Your task to perform on an android device: Clear all items from cart on newegg. Add "dell xps" to the cart on newegg Image 0: 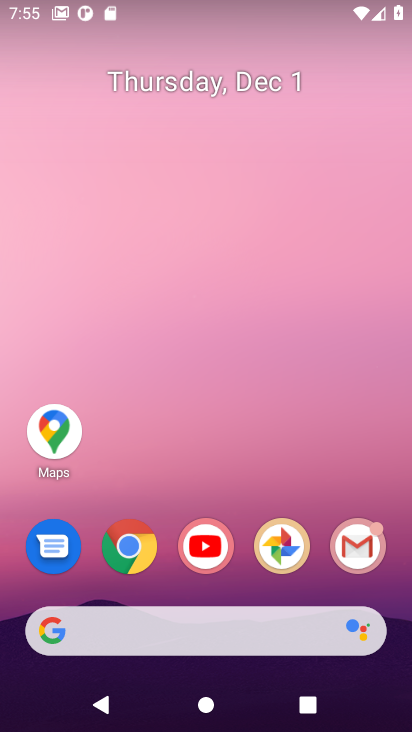
Step 0: click (133, 557)
Your task to perform on an android device: Clear all items from cart on newegg. Add "dell xps" to the cart on newegg Image 1: 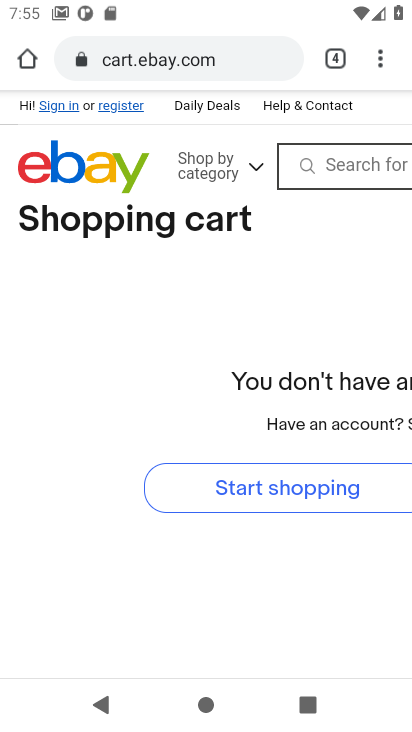
Step 1: click (165, 60)
Your task to perform on an android device: Clear all items from cart on newegg. Add "dell xps" to the cart on newegg Image 2: 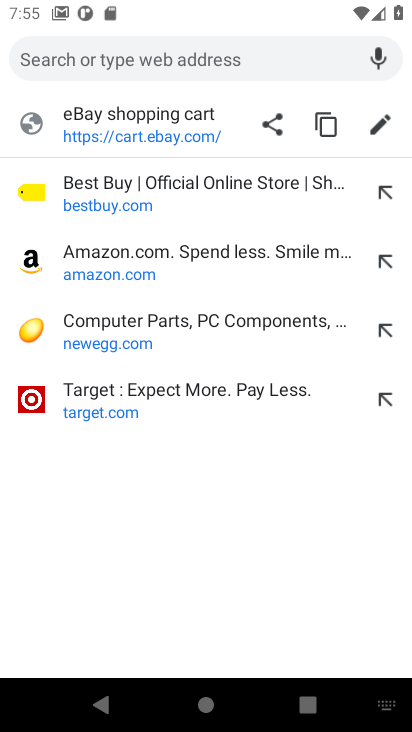
Step 2: click (79, 323)
Your task to perform on an android device: Clear all items from cart on newegg. Add "dell xps" to the cart on newegg Image 3: 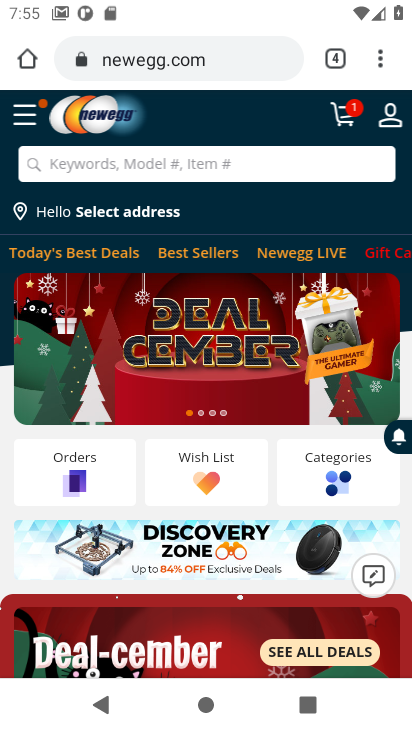
Step 3: click (339, 118)
Your task to perform on an android device: Clear all items from cart on newegg. Add "dell xps" to the cart on newegg Image 4: 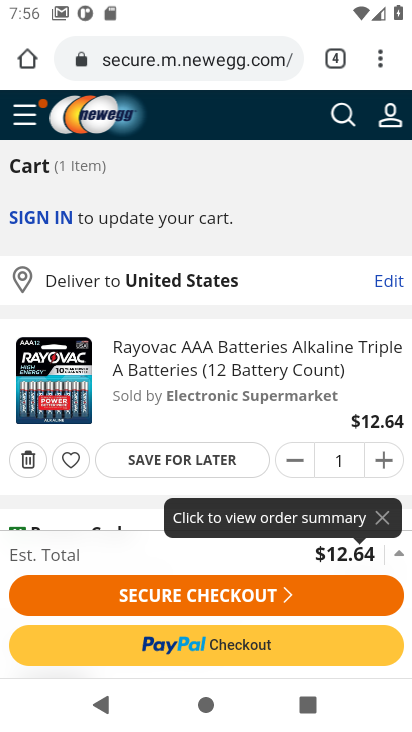
Step 4: click (23, 458)
Your task to perform on an android device: Clear all items from cart on newegg. Add "dell xps" to the cart on newegg Image 5: 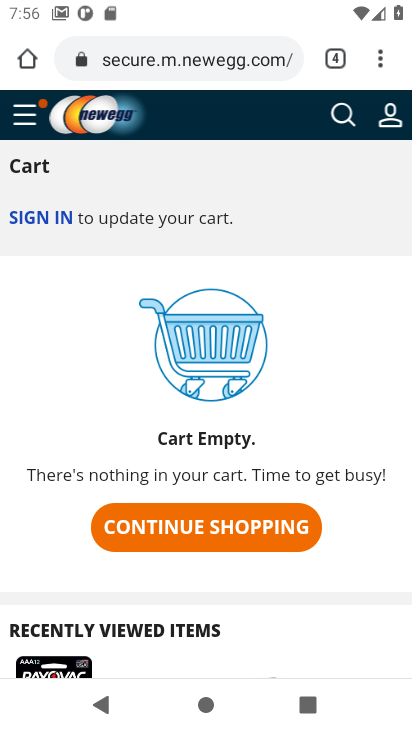
Step 5: click (339, 116)
Your task to perform on an android device: Clear all items from cart on newegg. Add "dell xps" to the cart on newegg Image 6: 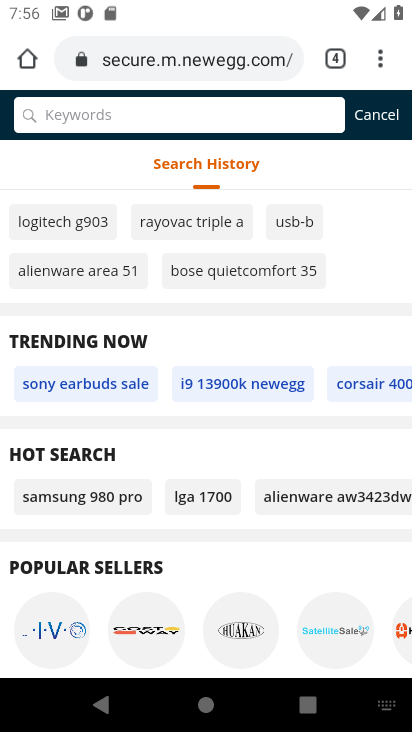
Step 6: type "dell xps"
Your task to perform on an android device: Clear all items from cart on newegg. Add "dell xps" to the cart on newegg Image 7: 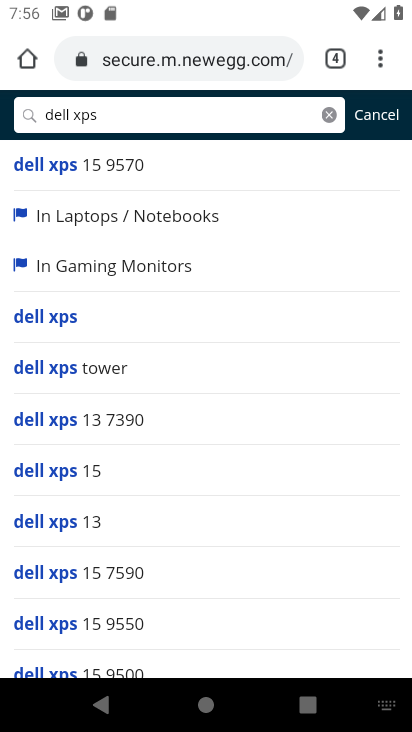
Step 7: click (56, 317)
Your task to perform on an android device: Clear all items from cart on newegg. Add "dell xps" to the cart on newegg Image 8: 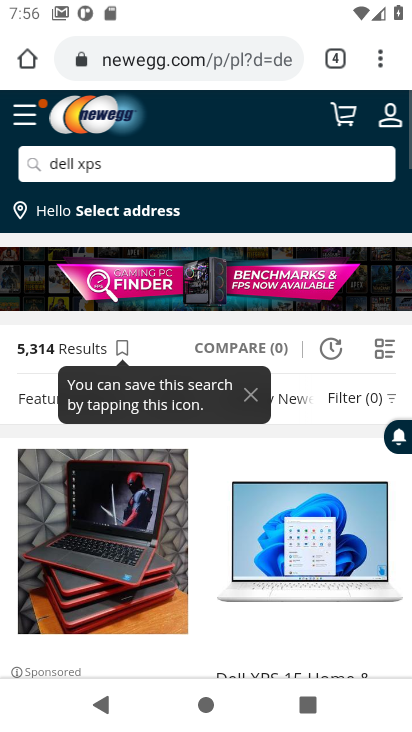
Step 8: drag from (158, 441) to (141, 95)
Your task to perform on an android device: Clear all items from cart on newegg. Add "dell xps" to the cart on newegg Image 9: 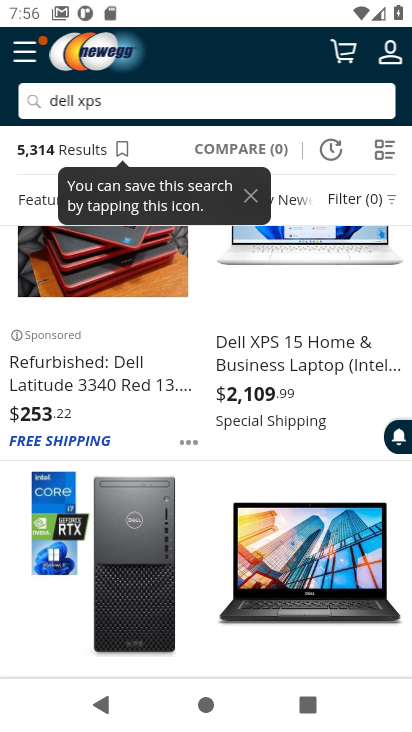
Step 9: click (308, 258)
Your task to perform on an android device: Clear all items from cart on newegg. Add "dell xps" to the cart on newegg Image 10: 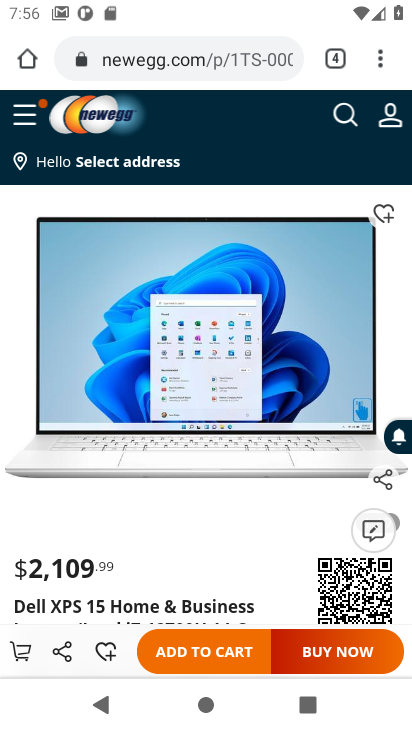
Step 10: click (185, 654)
Your task to perform on an android device: Clear all items from cart on newegg. Add "dell xps" to the cart on newegg Image 11: 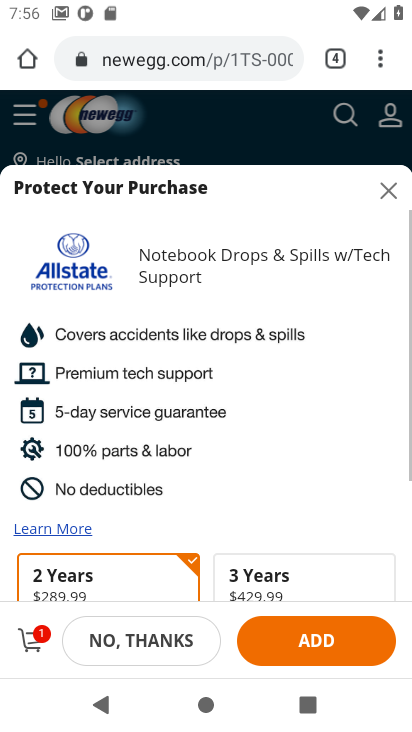
Step 11: task complete